Your task to perform on an android device: turn on bluetooth scan Image 0: 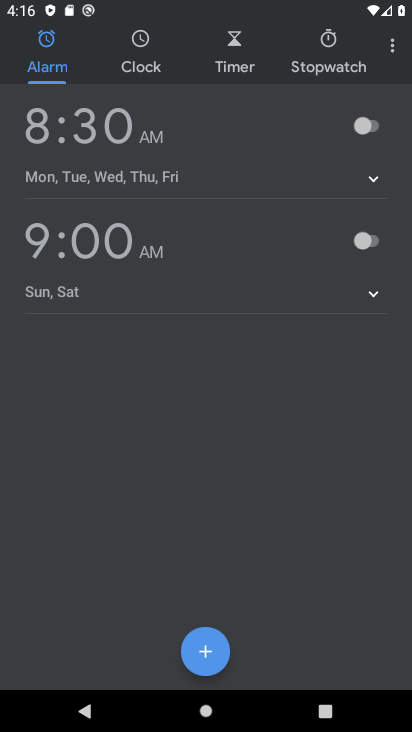
Step 0: press home button
Your task to perform on an android device: turn on bluetooth scan Image 1: 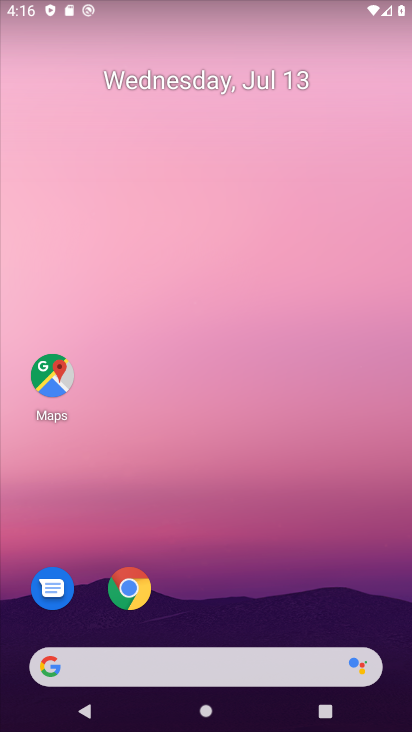
Step 1: drag from (24, 693) to (257, 2)
Your task to perform on an android device: turn on bluetooth scan Image 2: 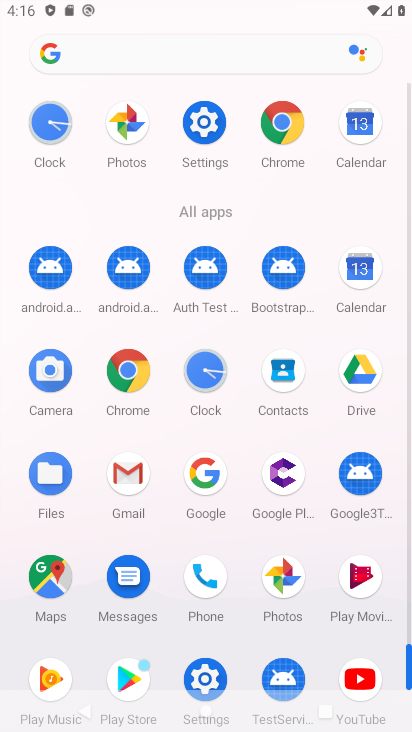
Step 2: click (208, 678)
Your task to perform on an android device: turn on bluetooth scan Image 3: 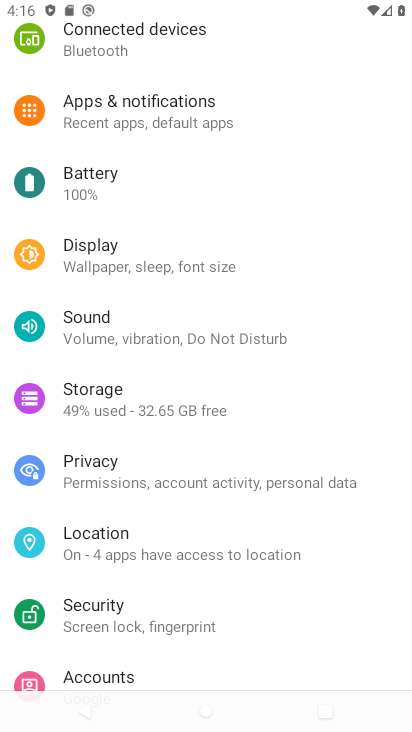
Step 3: click (155, 40)
Your task to perform on an android device: turn on bluetooth scan Image 4: 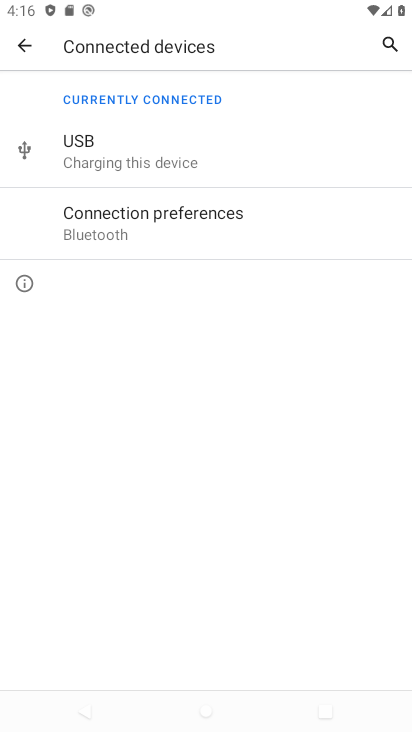
Step 4: task complete